Your task to perform on an android device: turn off improve location accuracy Image 0: 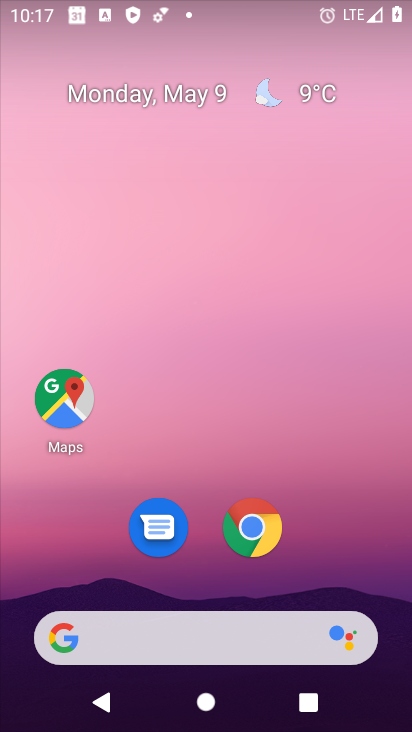
Step 0: drag from (369, 561) to (357, 196)
Your task to perform on an android device: turn off improve location accuracy Image 1: 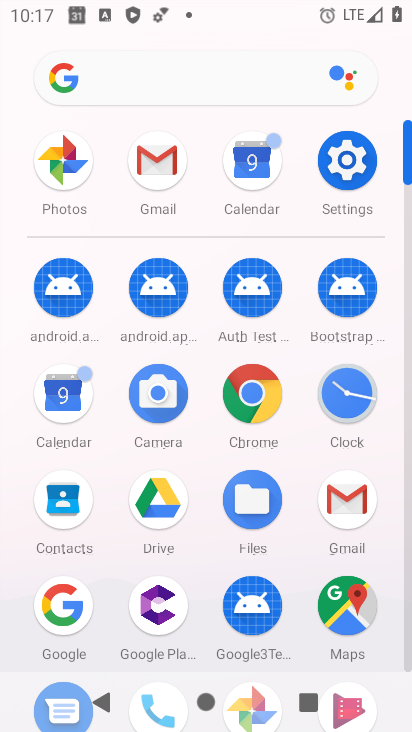
Step 1: click (407, 654)
Your task to perform on an android device: turn off improve location accuracy Image 2: 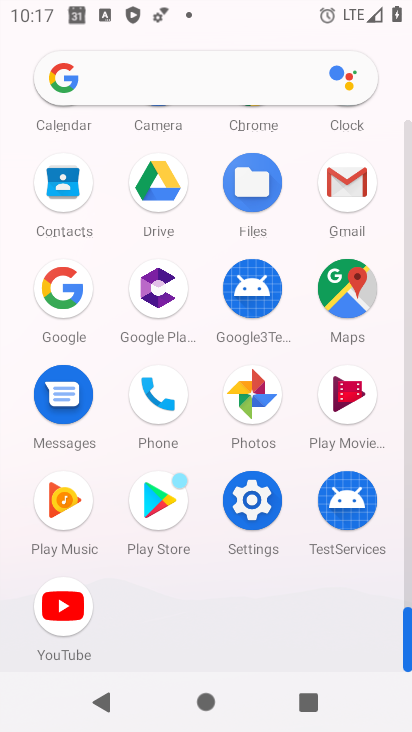
Step 2: click (249, 503)
Your task to perform on an android device: turn off improve location accuracy Image 3: 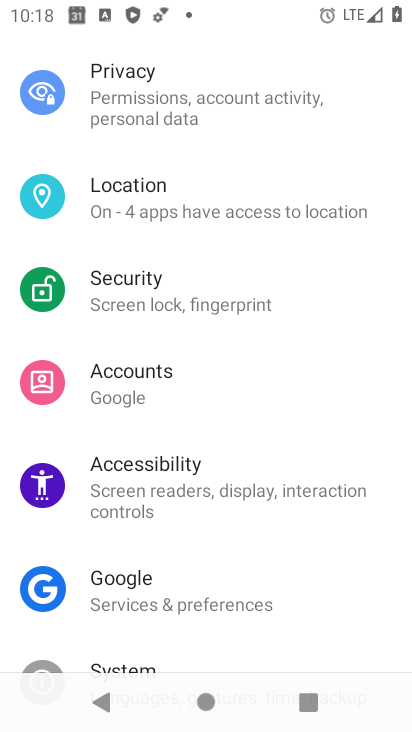
Step 3: click (132, 178)
Your task to perform on an android device: turn off improve location accuracy Image 4: 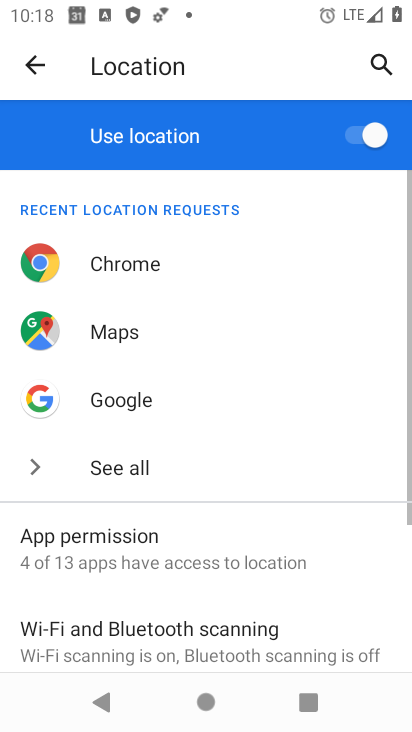
Step 4: drag from (198, 637) to (208, 157)
Your task to perform on an android device: turn off improve location accuracy Image 5: 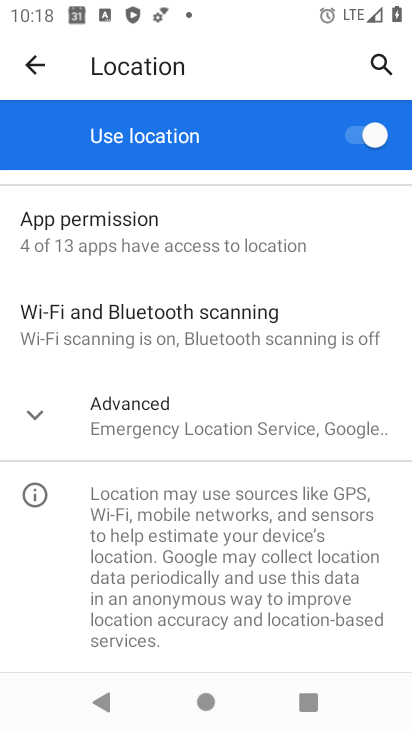
Step 5: click (33, 407)
Your task to perform on an android device: turn off improve location accuracy Image 6: 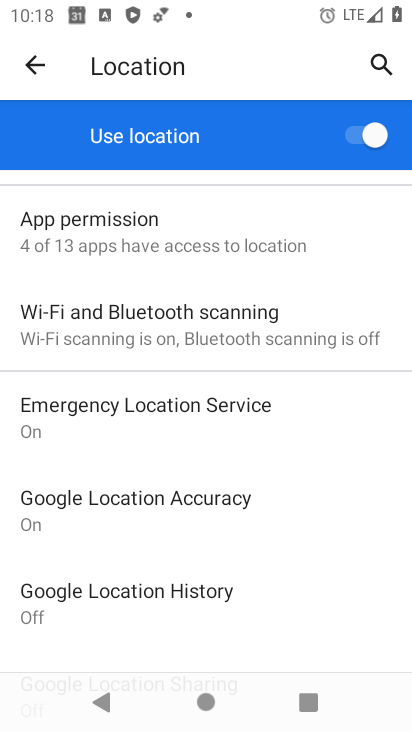
Step 6: click (118, 499)
Your task to perform on an android device: turn off improve location accuracy Image 7: 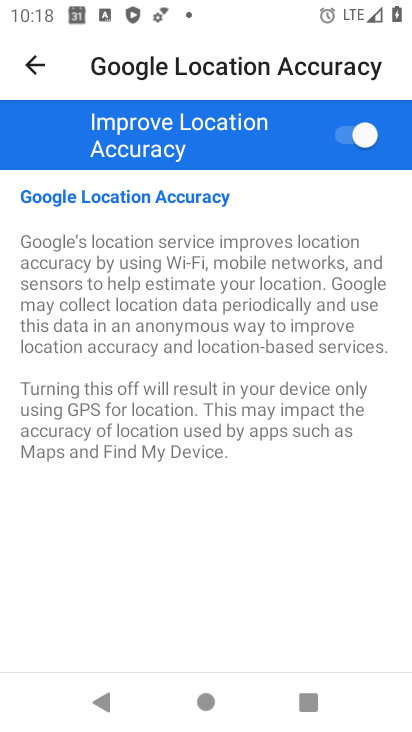
Step 7: click (337, 131)
Your task to perform on an android device: turn off improve location accuracy Image 8: 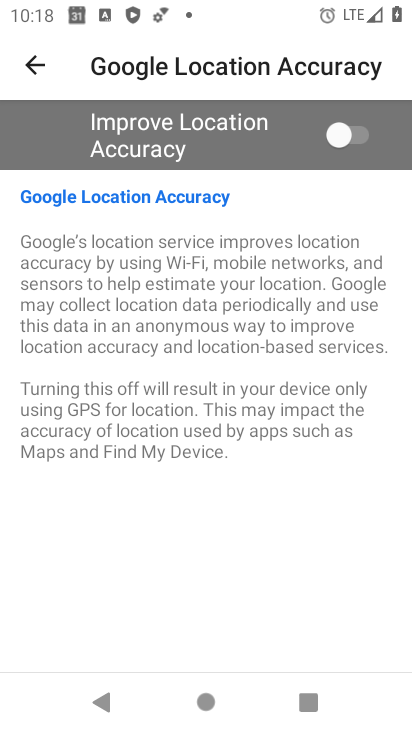
Step 8: task complete